Your task to perform on an android device: open chrome and create a bookmark for the current page Image 0: 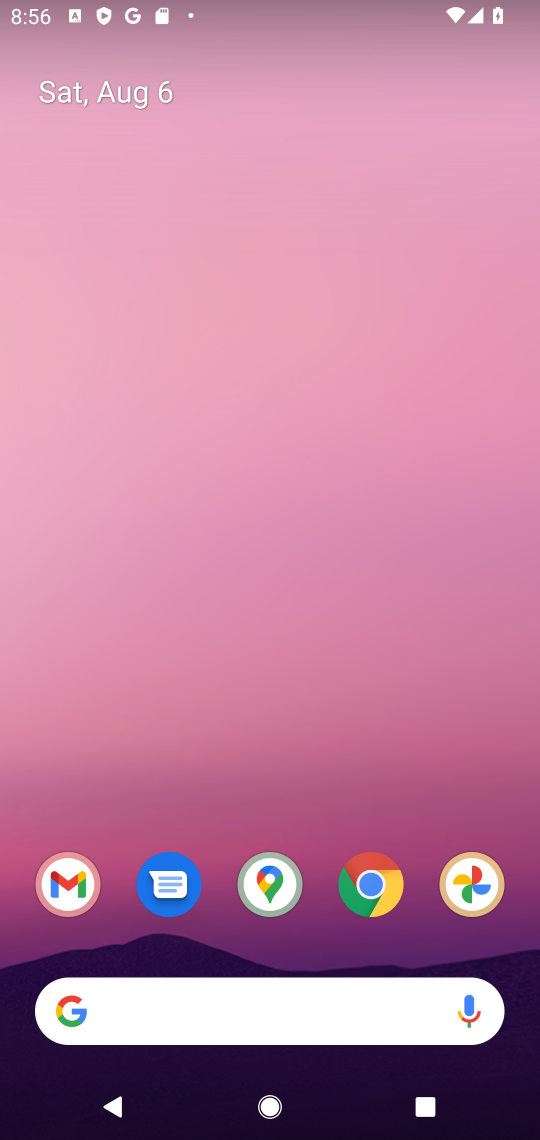
Step 0: click (369, 884)
Your task to perform on an android device: open chrome and create a bookmark for the current page Image 1: 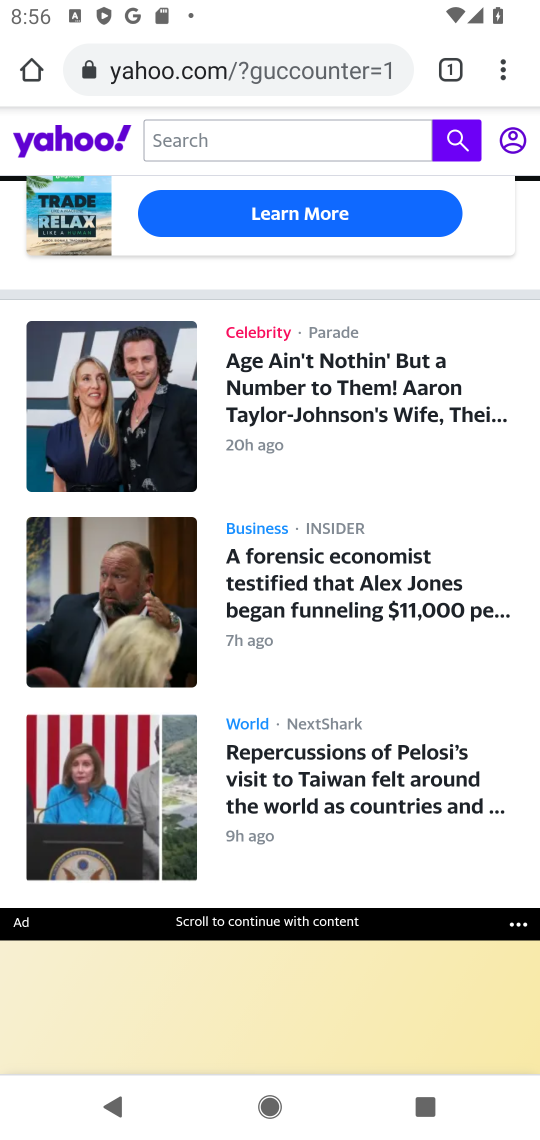
Step 1: click (500, 80)
Your task to perform on an android device: open chrome and create a bookmark for the current page Image 2: 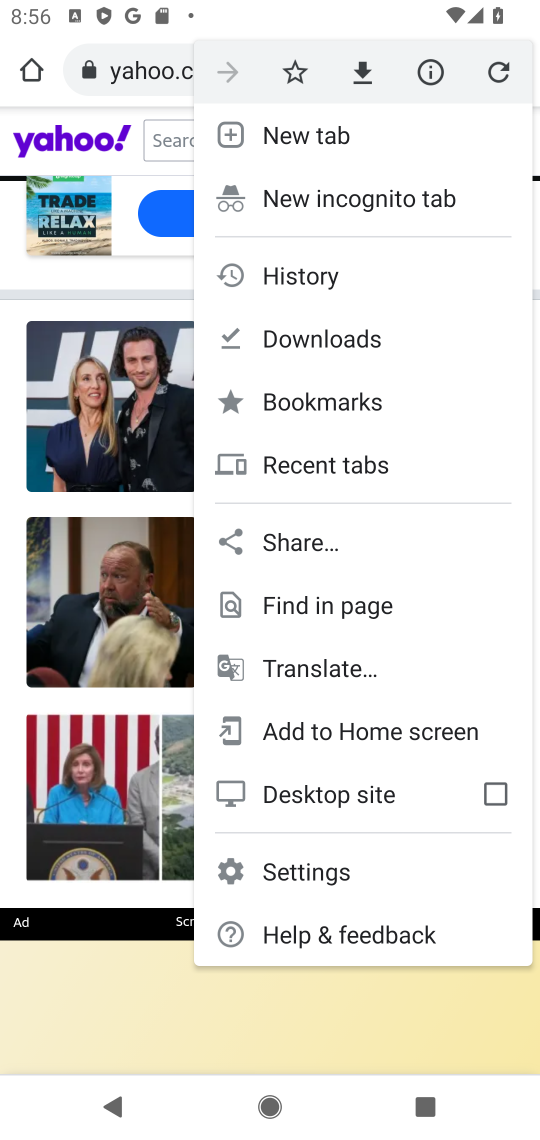
Step 2: click (298, 69)
Your task to perform on an android device: open chrome and create a bookmark for the current page Image 3: 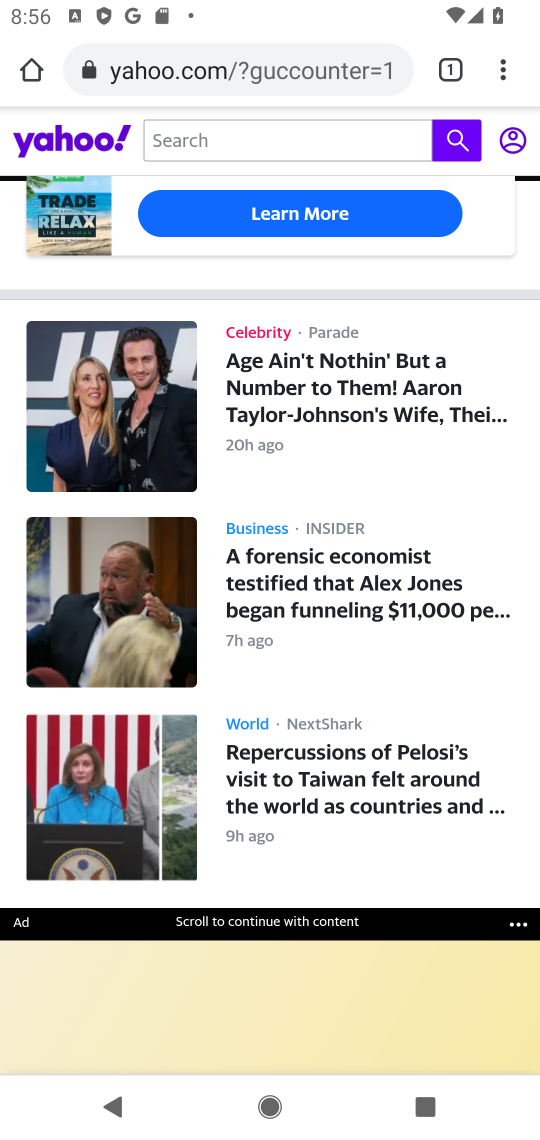
Step 3: task complete